Your task to perform on an android device: choose inbox layout in the gmail app Image 0: 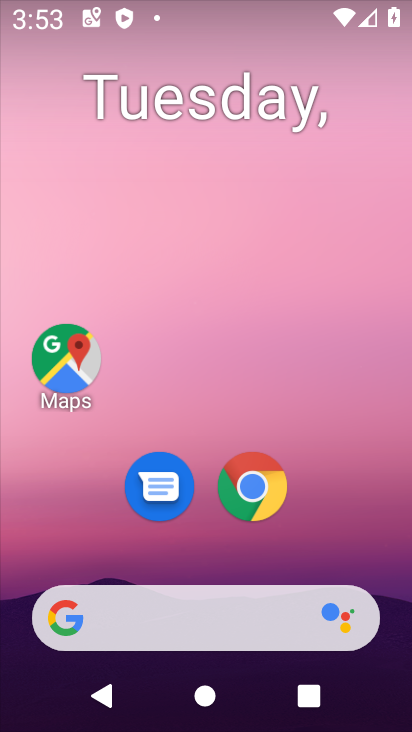
Step 0: drag from (187, 603) to (327, 34)
Your task to perform on an android device: choose inbox layout in the gmail app Image 1: 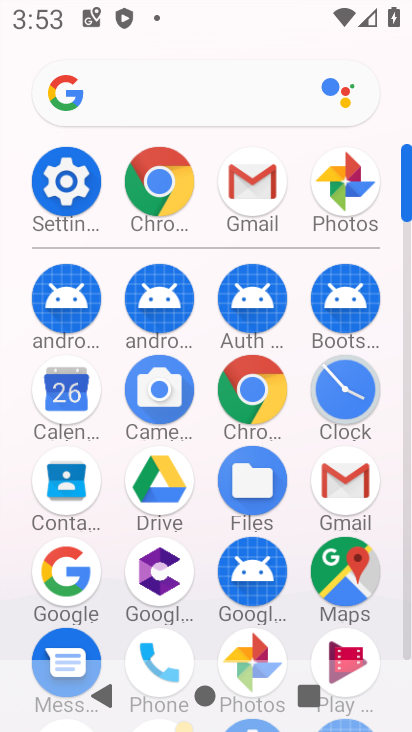
Step 1: click (237, 172)
Your task to perform on an android device: choose inbox layout in the gmail app Image 2: 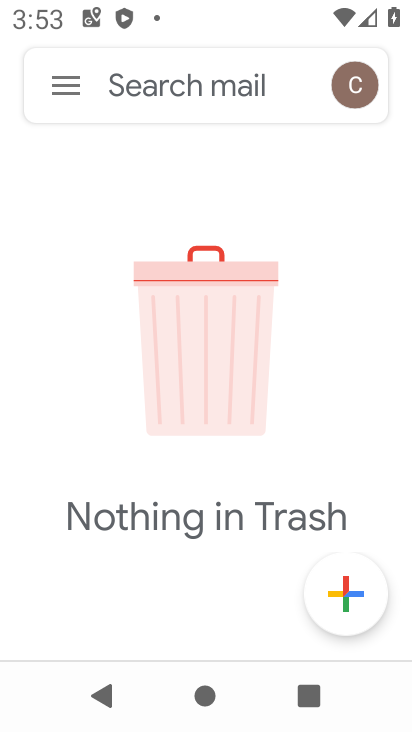
Step 2: click (64, 82)
Your task to perform on an android device: choose inbox layout in the gmail app Image 3: 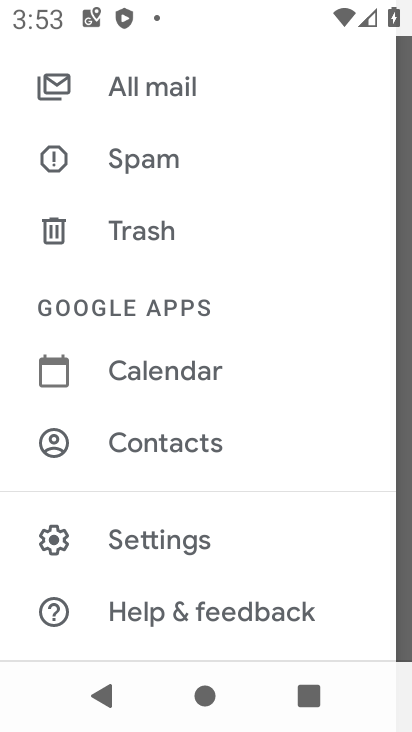
Step 3: click (160, 533)
Your task to perform on an android device: choose inbox layout in the gmail app Image 4: 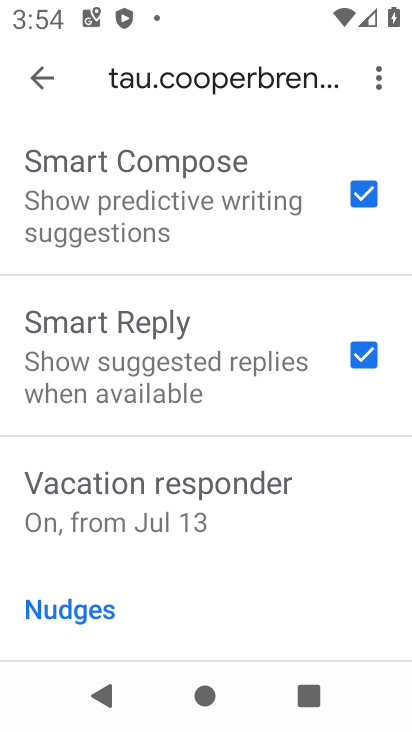
Step 4: drag from (190, 194) to (139, 672)
Your task to perform on an android device: choose inbox layout in the gmail app Image 5: 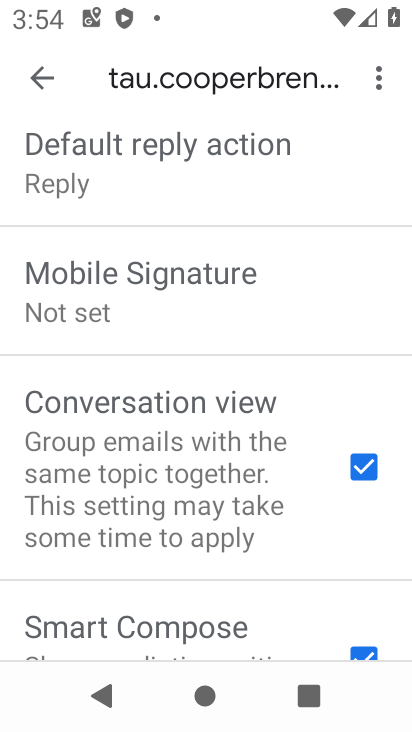
Step 5: drag from (272, 202) to (160, 695)
Your task to perform on an android device: choose inbox layout in the gmail app Image 6: 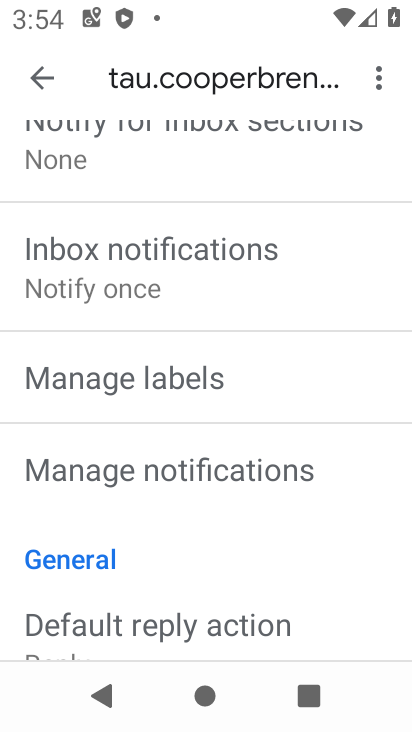
Step 6: drag from (186, 219) to (154, 710)
Your task to perform on an android device: choose inbox layout in the gmail app Image 7: 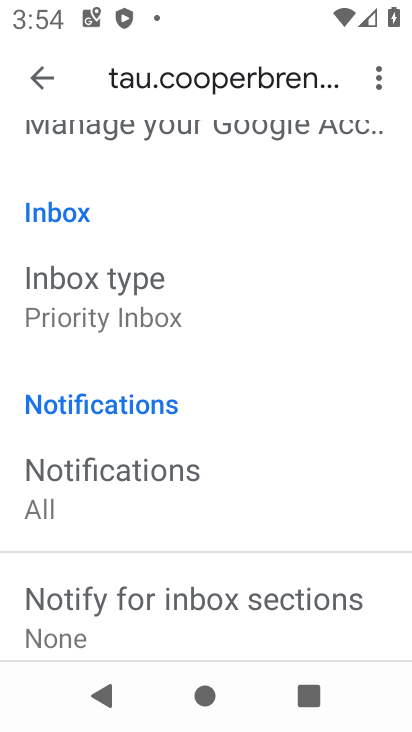
Step 7: click (188, 288)
Your task to perform on an android device: choose inbox layout in the gmail app Image 8: 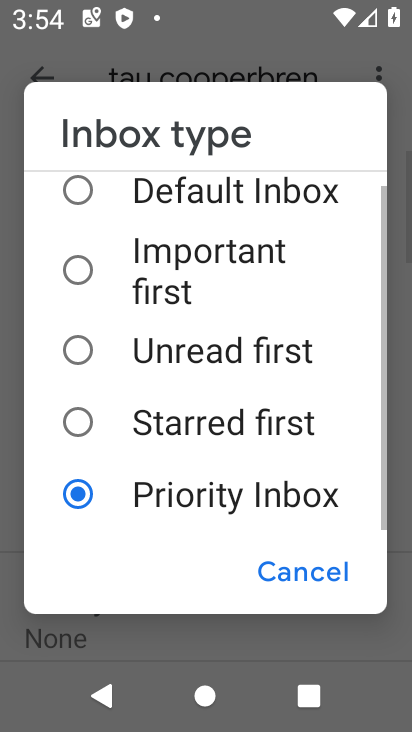
Step 8: click (193, 186)
Your task to perform on an android device: choose inbox layout in the gmail app Image 9: 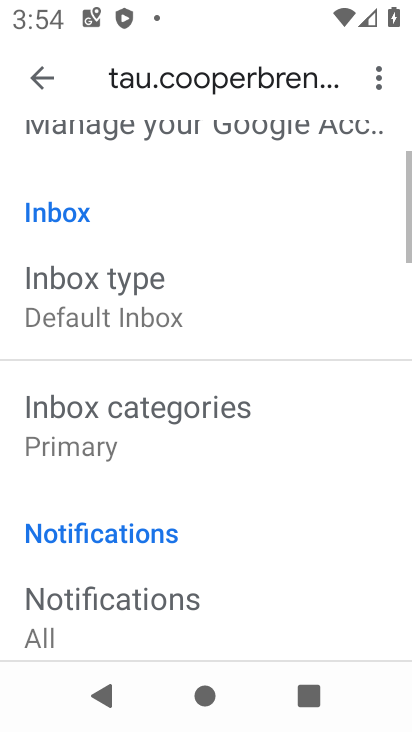
Step 9: task complete